Your task to perform on an android device: Open notification settings Image 0: 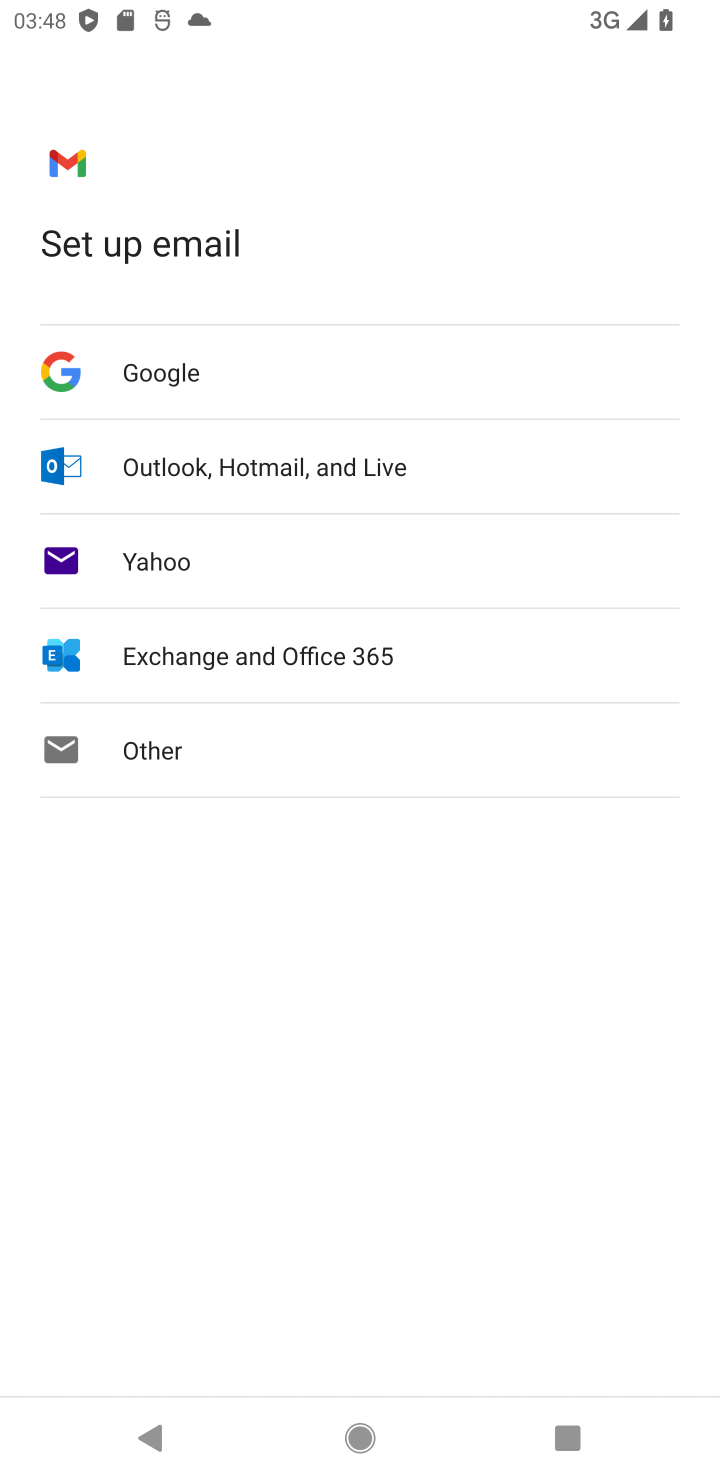
Step 0: press home button
Your task to perform on an android device: Open notification settings Image 1: 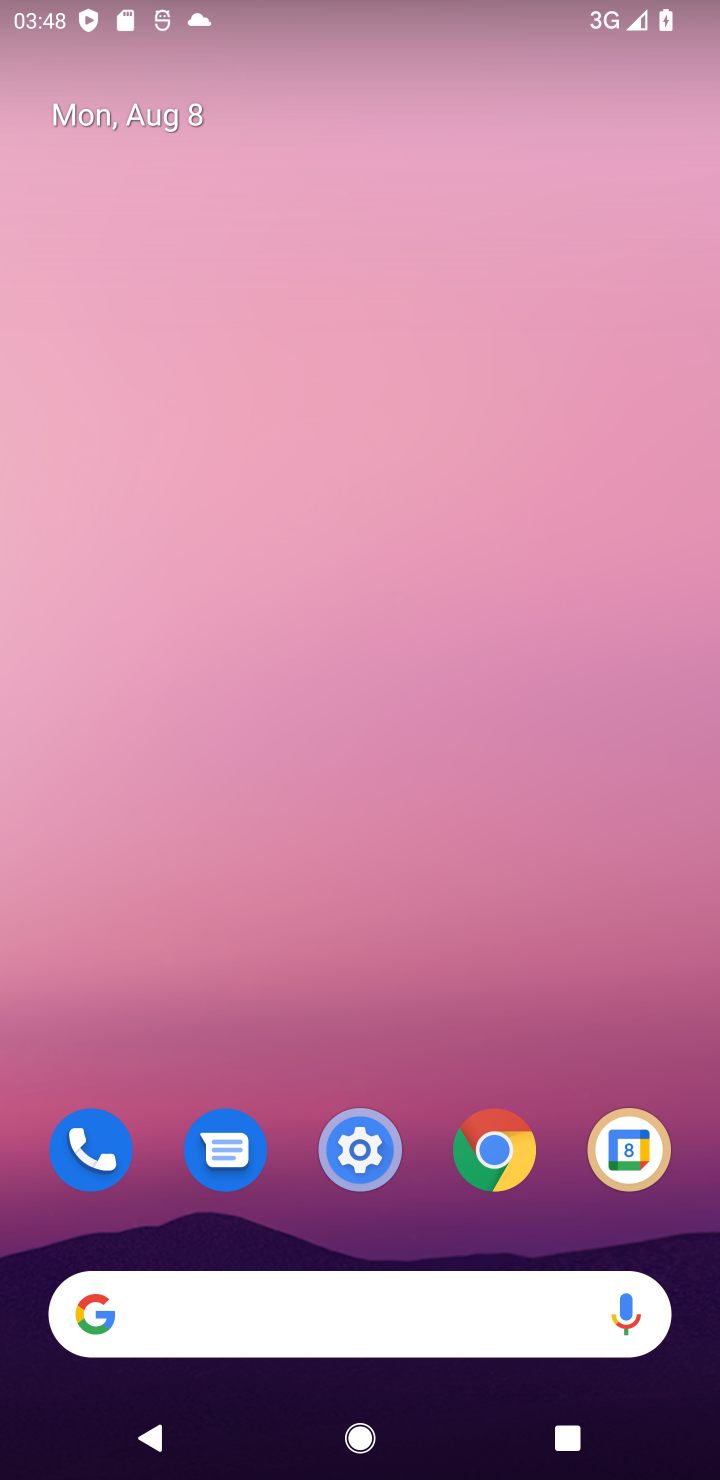
Step 1: click (327, 1154)
Your task to perform on an android device: Open notification settings Image 2: 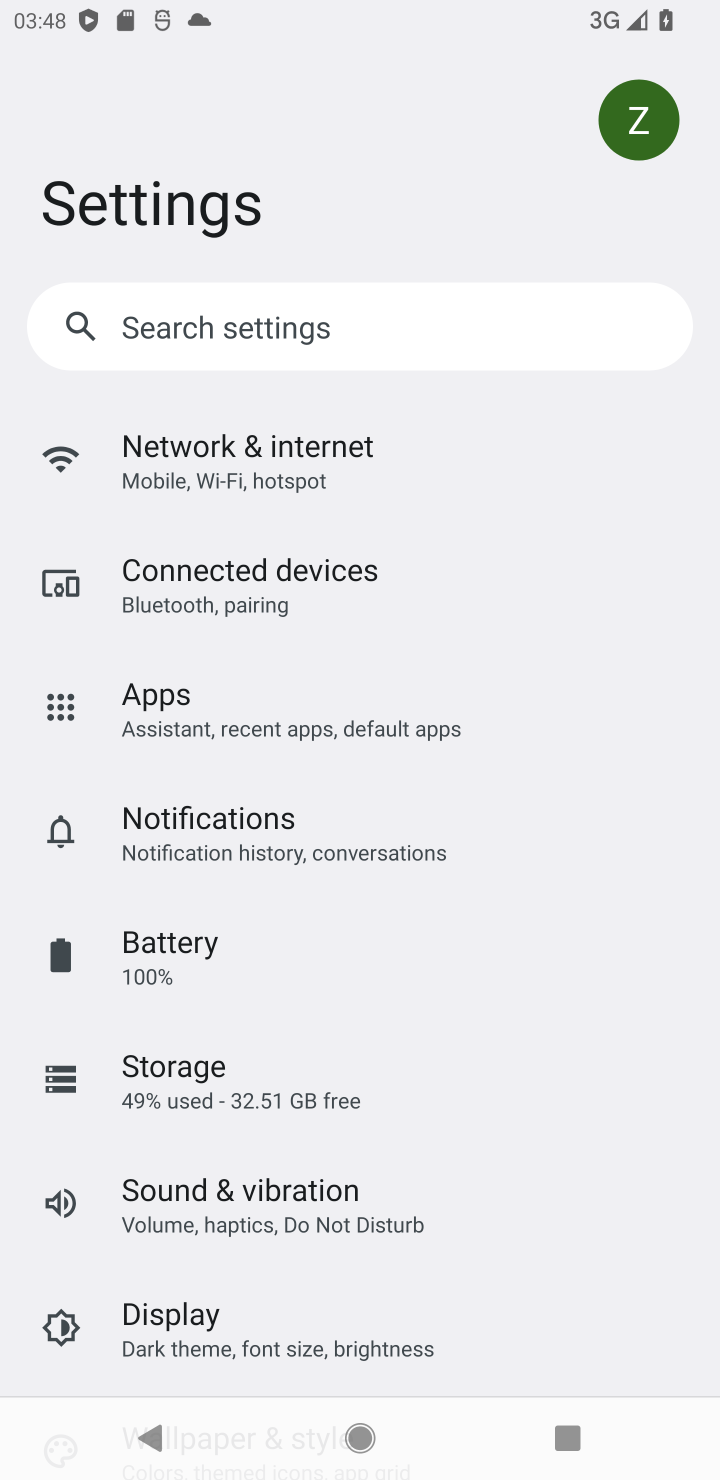
Step 2: click (231, 834)
Your task to perform on an android device: Open notification settings Image 3: 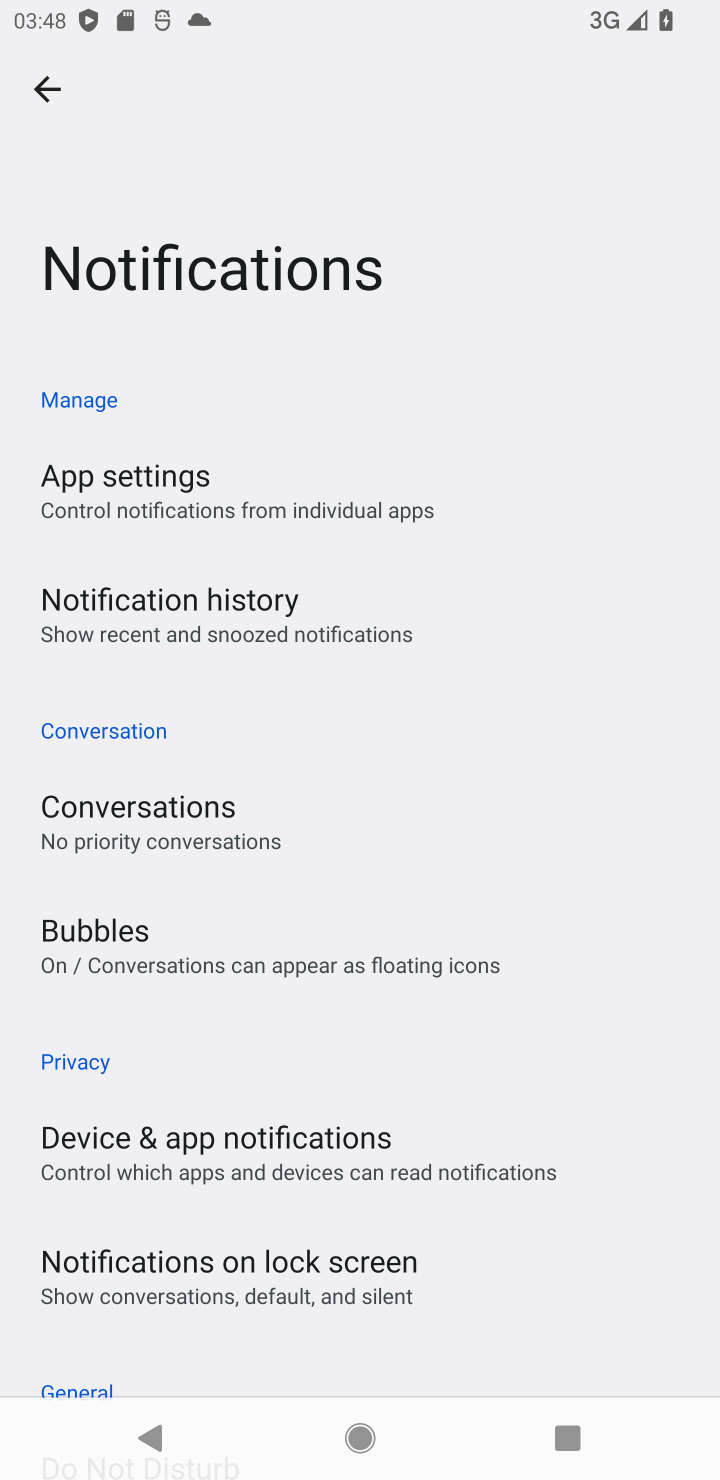
Step 3: task complete